Your task to perform on an android device: all mails in gmail Image 0: 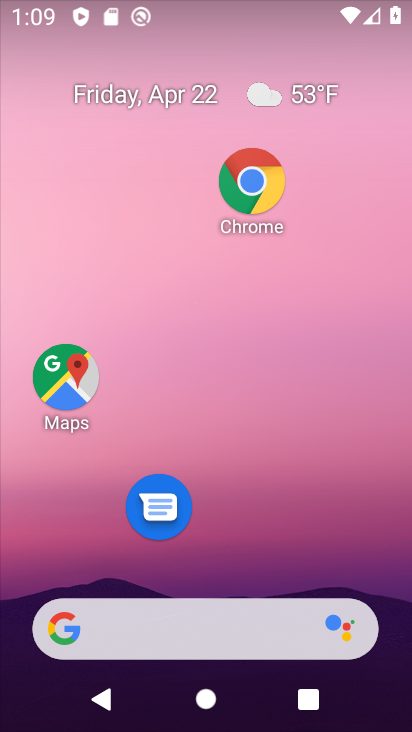
Step 0: drag from (291, 540) to (204, 8)
Your task to perform on an android device: all mails in gmail Image 1: 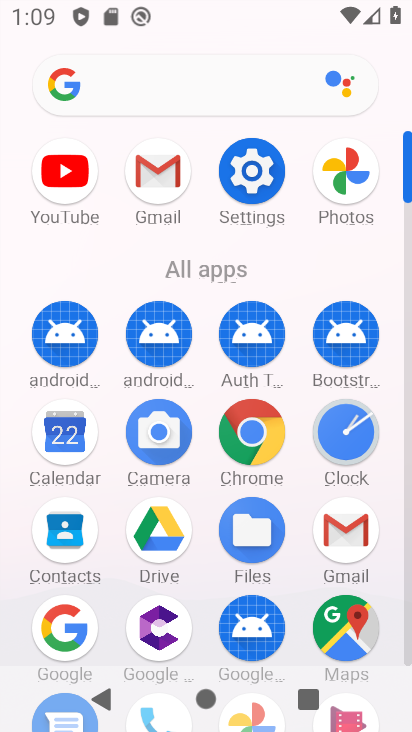
Step 1: click (348, 542)
Your task to perform on an android device: all mails in gmail Image 2: 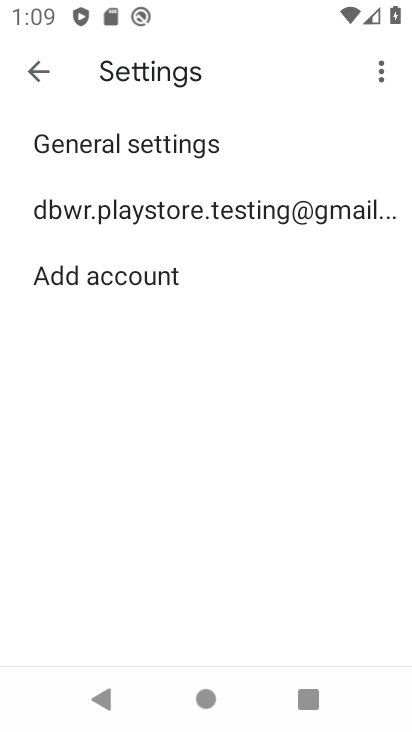
Step 2: click (25, 81)
Your task to perform on an android device: all mails in gmail Image 3: 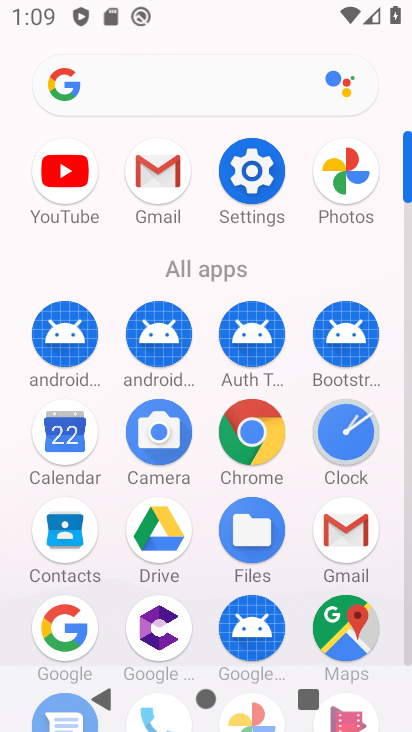
Step 3: click (138, 200)
Your task to perform on an android device: all mails in gmail Image 4: 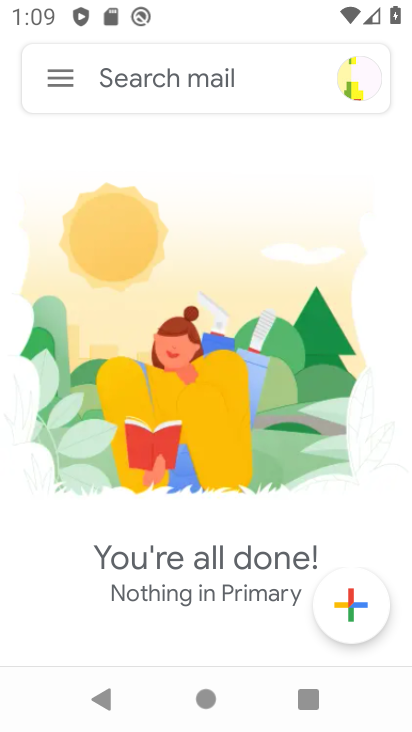
Step 4: click (55, 87)
Your task to perform on an android device: all mails in gmail Image 5: 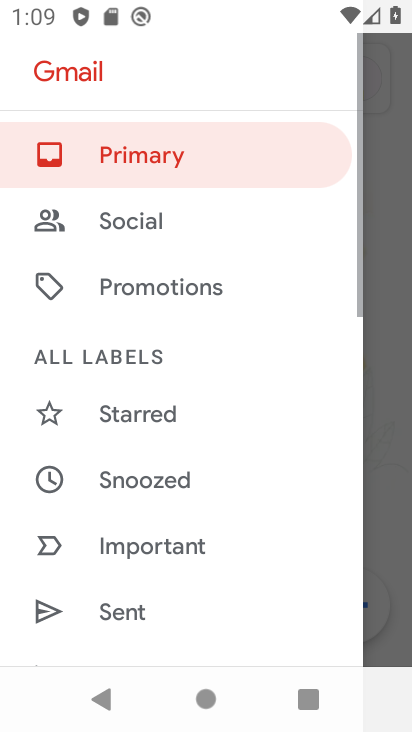
Step 5: drag from (140, 576) to (97, 214)
Your task to perform on an android device: all mails in gmail Image 6: 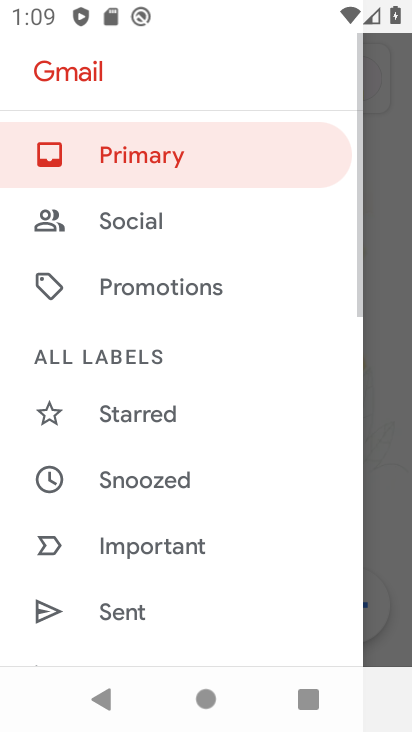
Step 6: drag from (101, 531) to (110, 128)
Your task to perform on an android device: all mails in gmail Image 7: 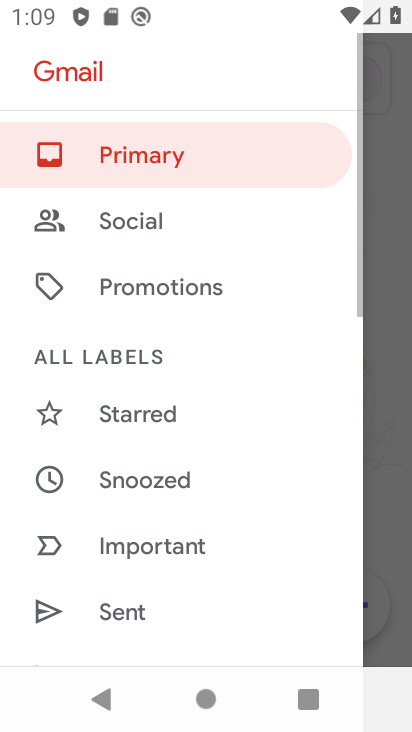
Step 7: drag from (109, 592) to (176, 111)
Your task to perform on an android device: all mails in gmail Image 8: 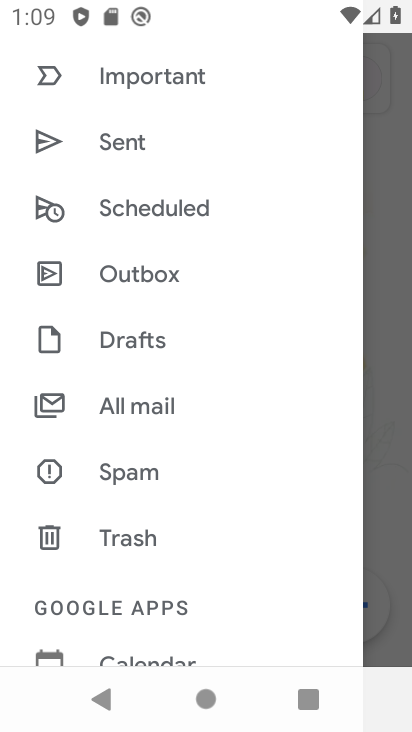
Step 8: click (165, 411)
Your task to perform on an android device: all mails in gmail Image 9: 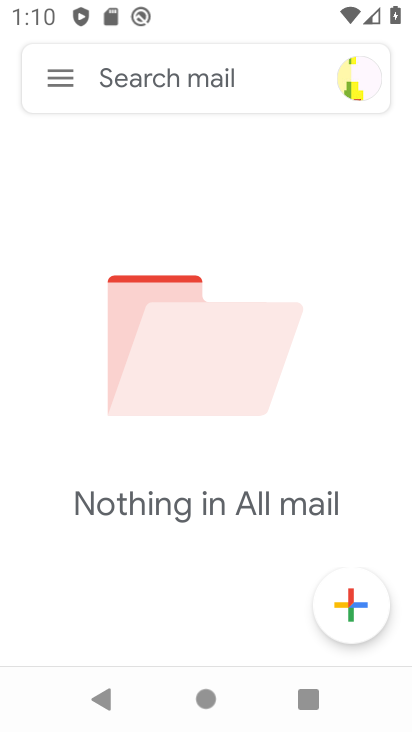
Step 9: task complete